Your task to perform on an android device: toggle data saver in the chrome app Image 0: 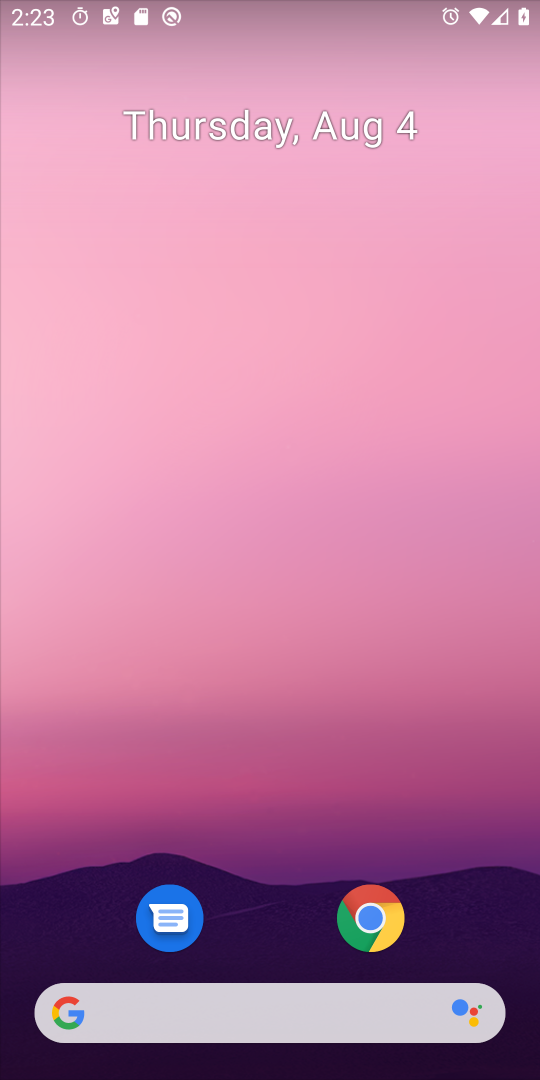
Step 0: click (384, 926)
Your task to perform on an android device: toggle data saver in the chrome app Image 1: 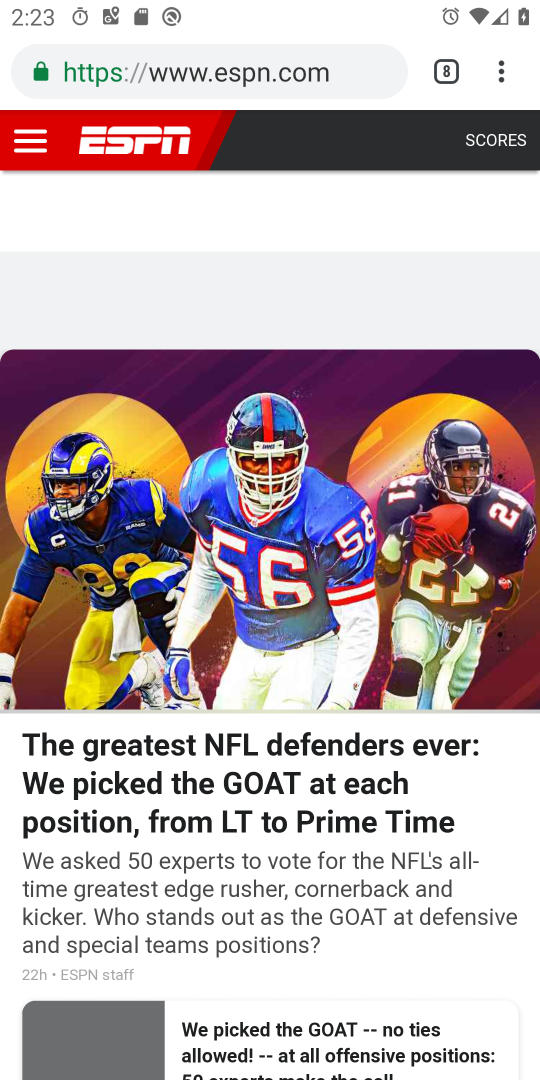
Step 1: click (506, 65)
Your task to perform on an android device: toggle data saver in the chrome app Image 2: 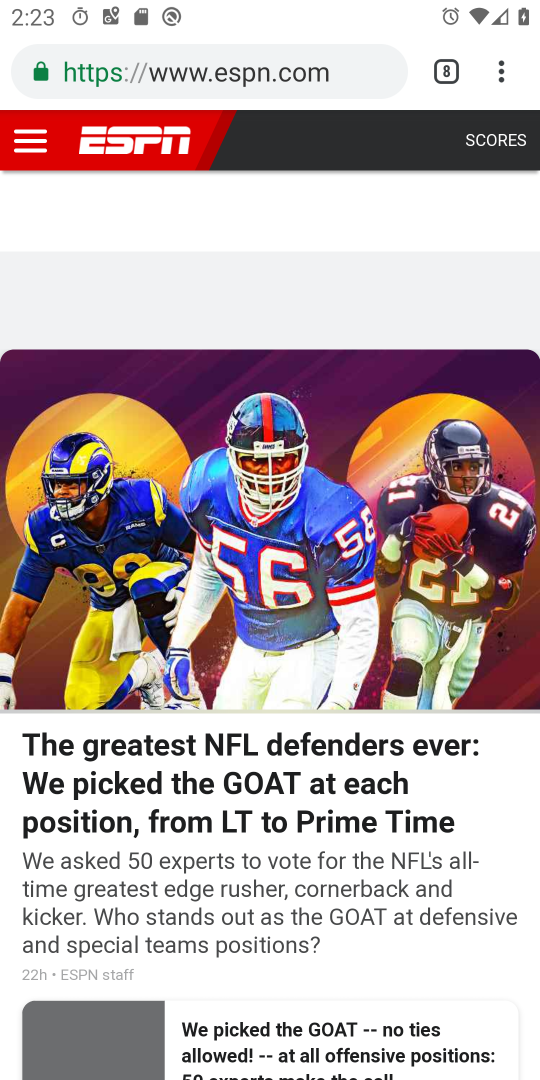
Step 2: drag from (504, 73) to (282, 850)
Your task to perform on an android device: toggle data saver in the chrome app Image 3: 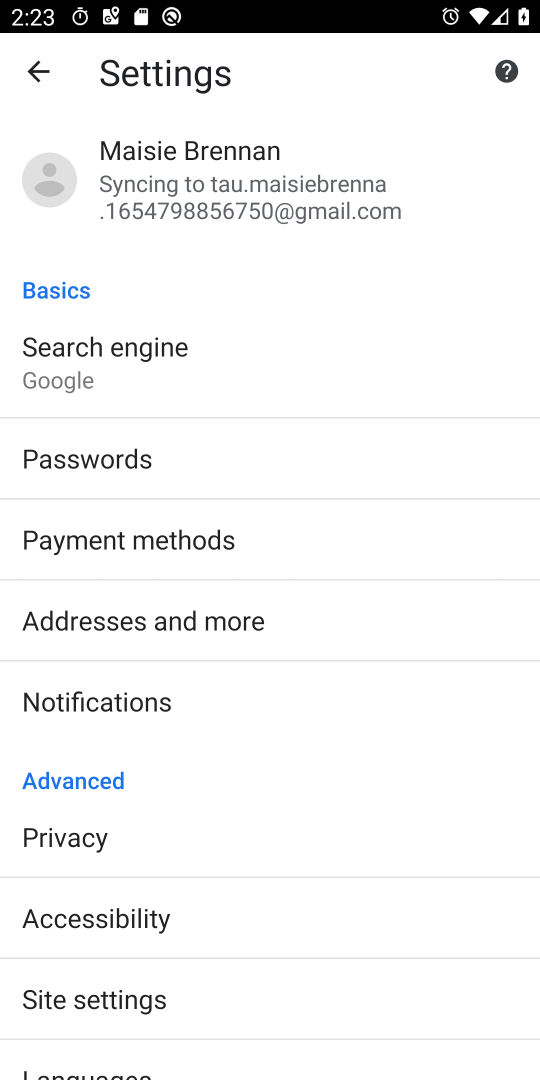
Step 3: drag from (203, 1014) to (207, 559)
Your task to perform on an android device: toggle data saver in the chrome app Image 4: 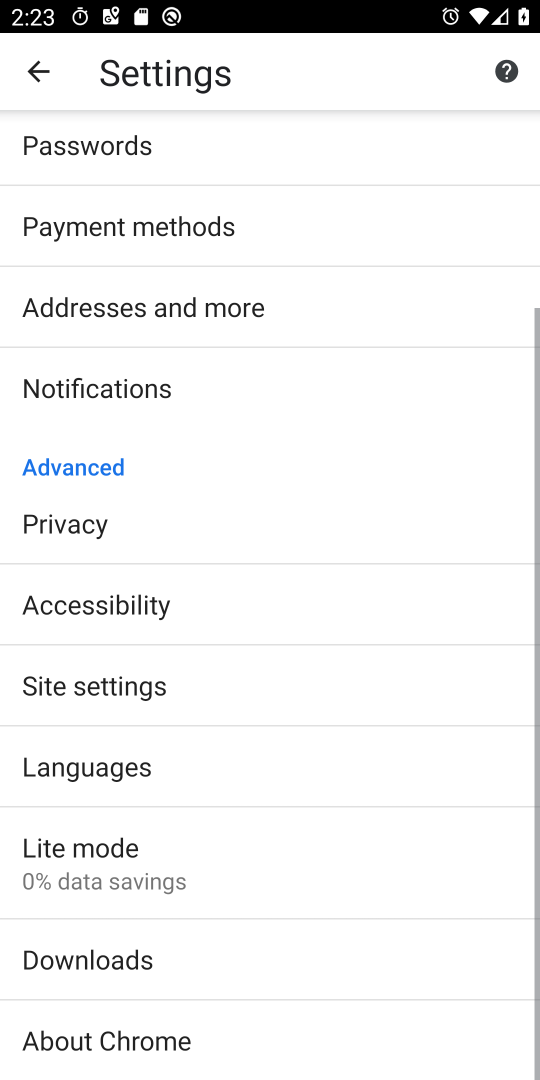
Step 4: click (137, 853)
Your task to perform on an android device: toggle data saver in the chrome app Image 5: 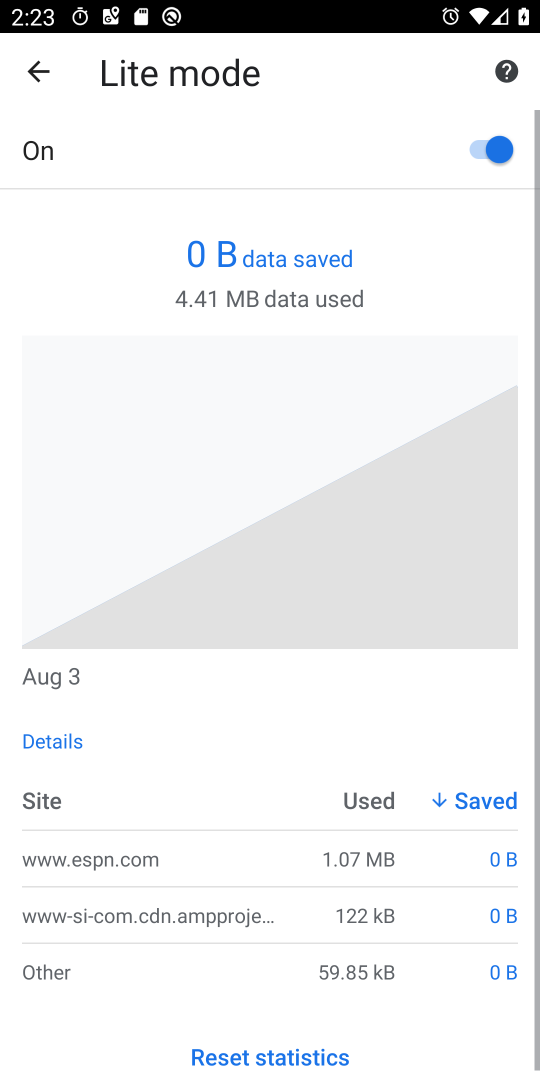
Step 5: click (471, 155)
Your task to perform on an android device: toggle data saver in the chrome app Image 6: 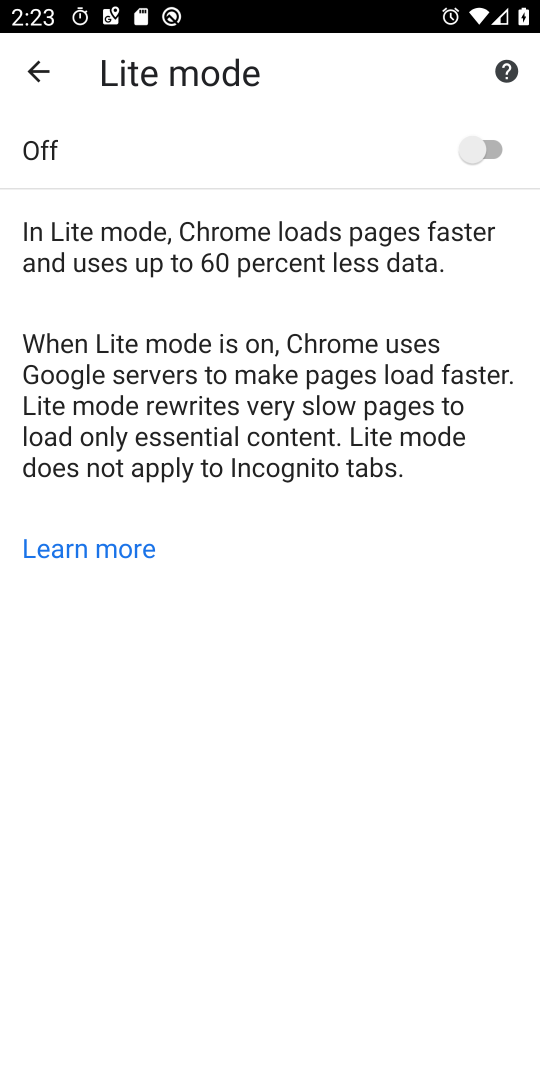
Step 6: task complete